Your task to perform on an android device: add a label to a message in the gmail app Image 0: 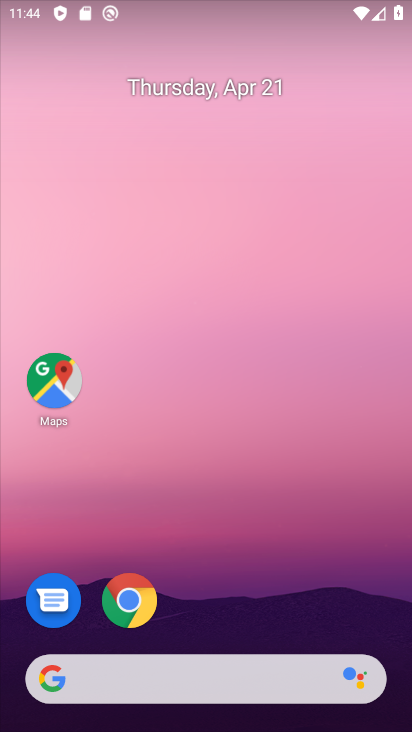
Step 0: drag from (194, 590) to (280, 99)
Your task to perform on an android device: add a label to a message in the gmail app Image 1: 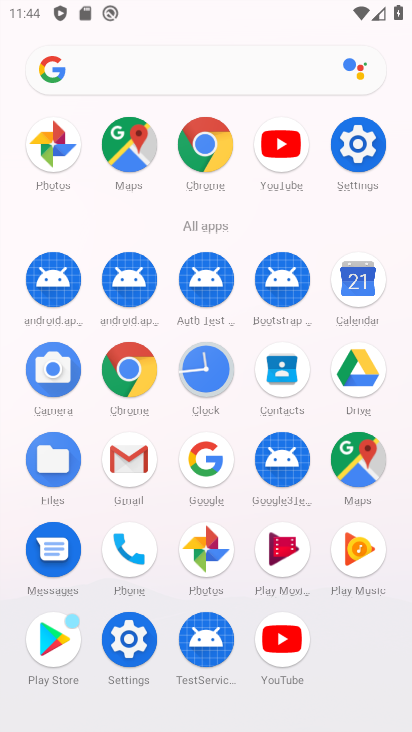
Step 1: click (127, 458)
Your task to perform on an android device: add a label to a message in the gmail app Image 2: 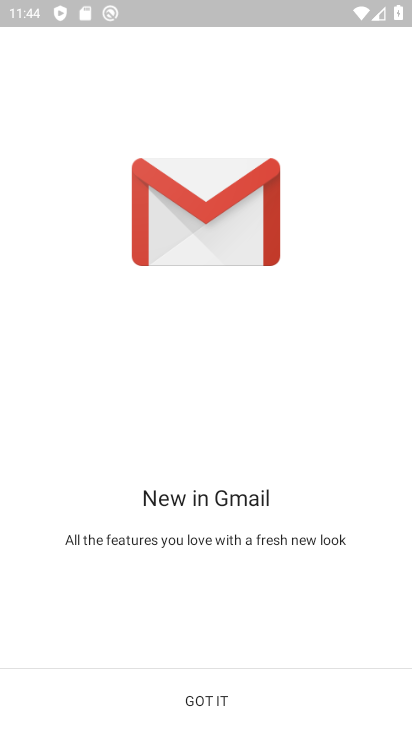
Step 2: click (230, 700)
Your task to perform on an android device: add a label to a message in the gmail app Image 3: 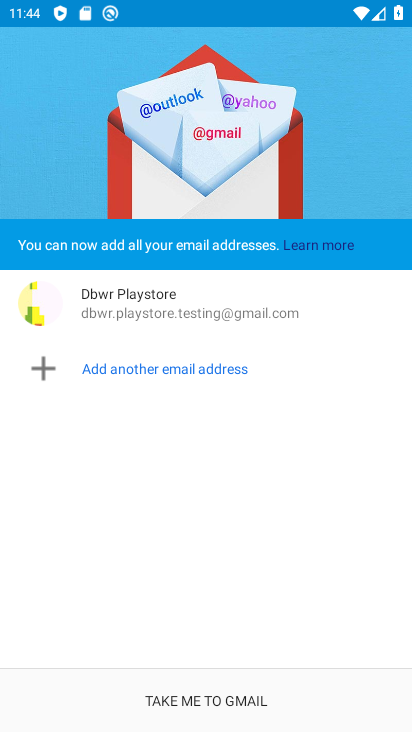
Step 3: click (235, 714)
Your task to perform on an android device: add a label to a message in the gmail app Image 4: 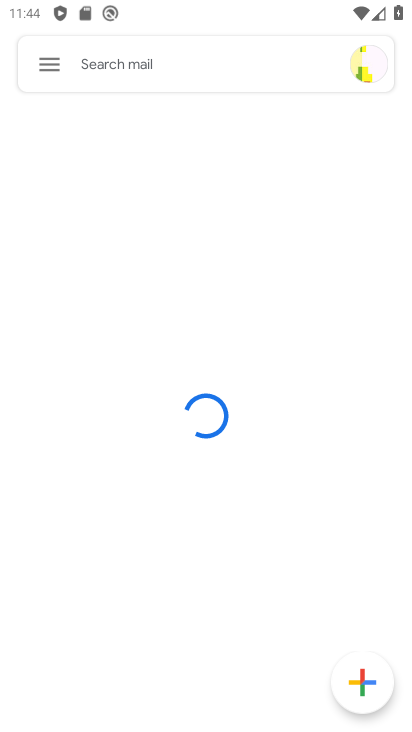
Step 4: click (55, 69)
Your task to perform on an android device: add a label to a message in the gmail app Image 5: 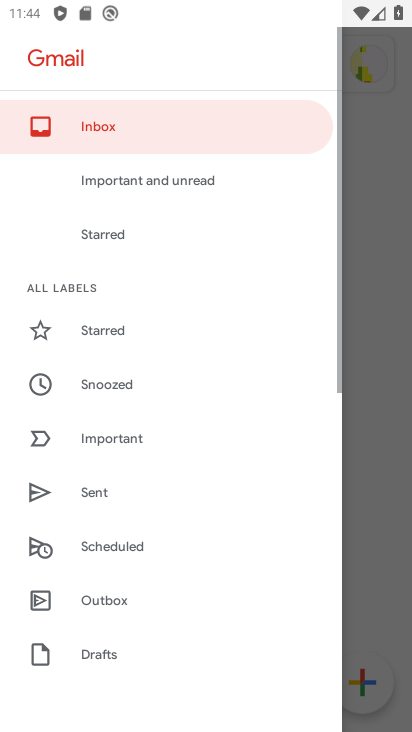
Step 5: drag from (116, 569) to (232, 167)
Your task to perform on an android device: add a label to a message in the gmail app Image 6: 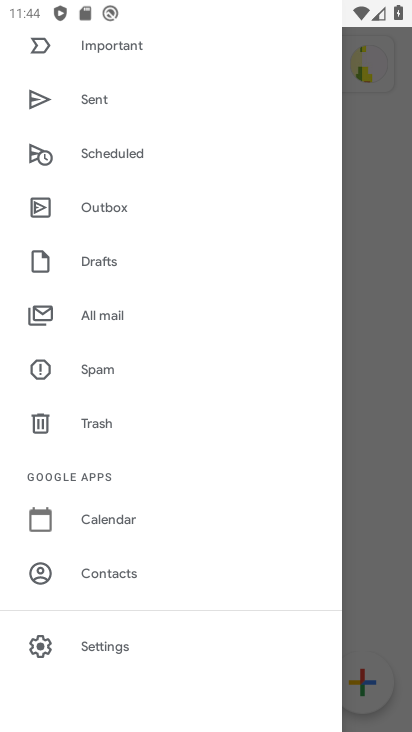
Step 6: drag from (123, 620) to (182, 298)
Your task to perform on an android device: add a label to a message in the gmail app Image 7: 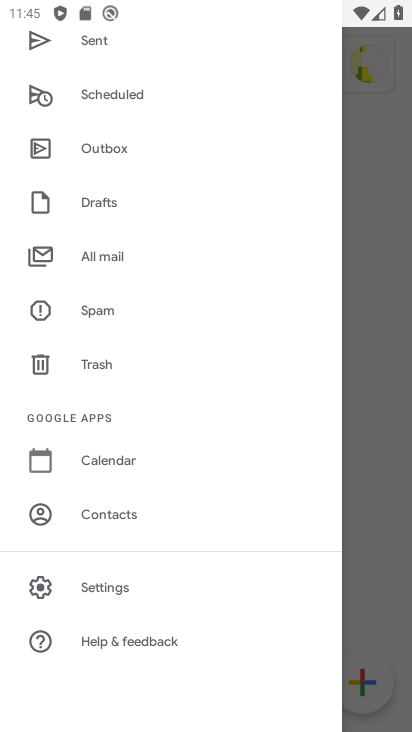
Step 7: click (154, 263)
Your task to perform on an android device: add a label to a message in the gmail app Image 8: 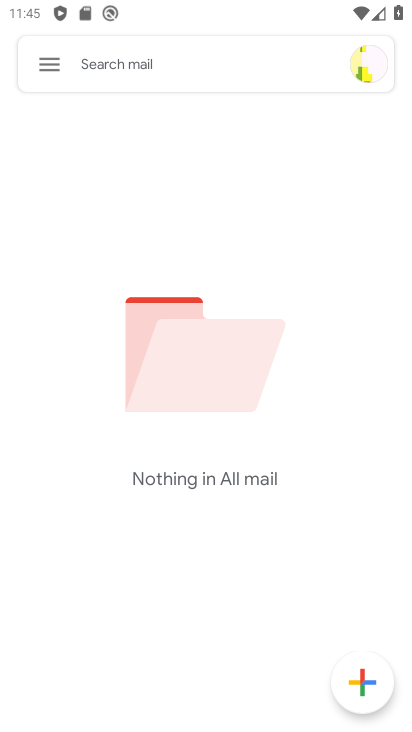
Step 8: task complete